Your task to perform on an android device: Show me the alarms in the clock app Image 0: 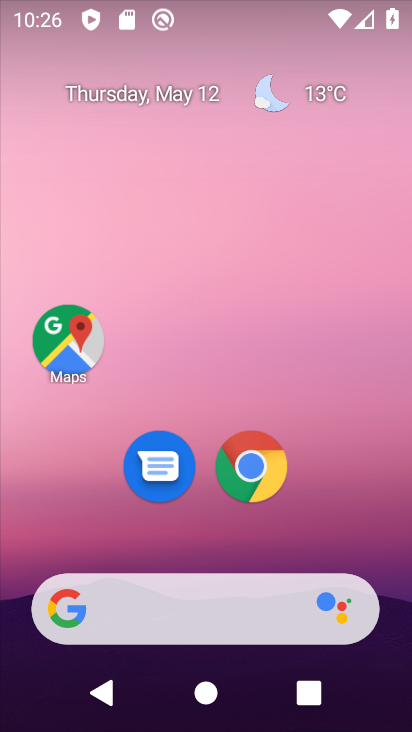
Step 0: drag from (321, 491) to (290, 62)
Your task to perform on an android device: Show me the alarms in the clock app Image 1: 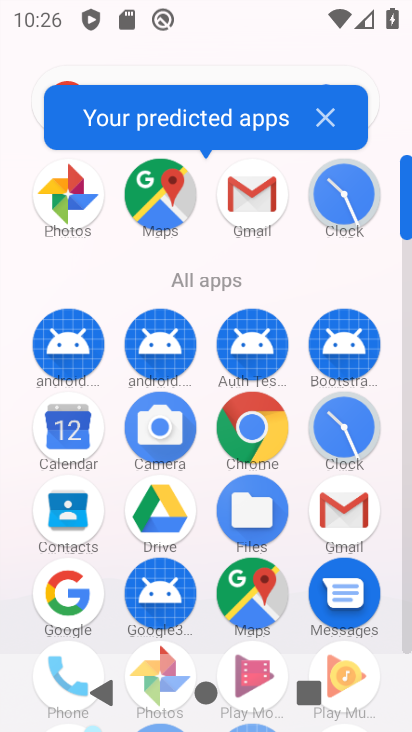
Step 1: click (345, 199)
Your task to perform on an android device: Show me the alarms in the clock app Image 2: 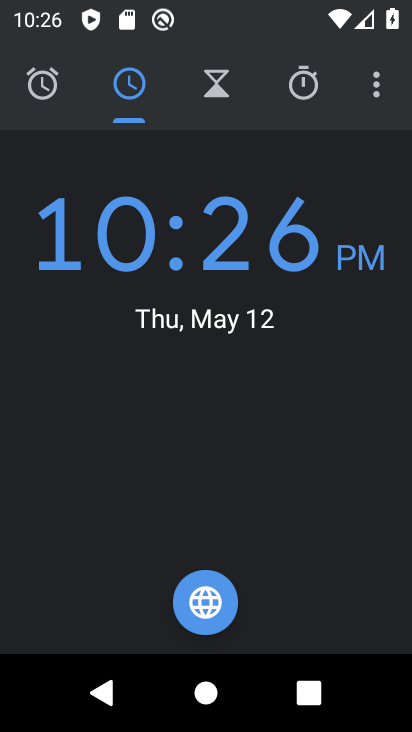
Step 2: click (44, 81)
Your task to perform on an android device: Show me the alarms in the clock app Image 3: 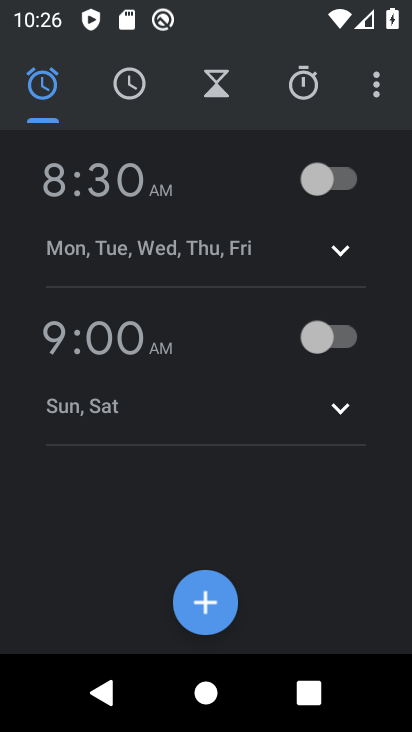
Step 3: task complete